Your task to perform on an android device: Go to Android settings Image 0: 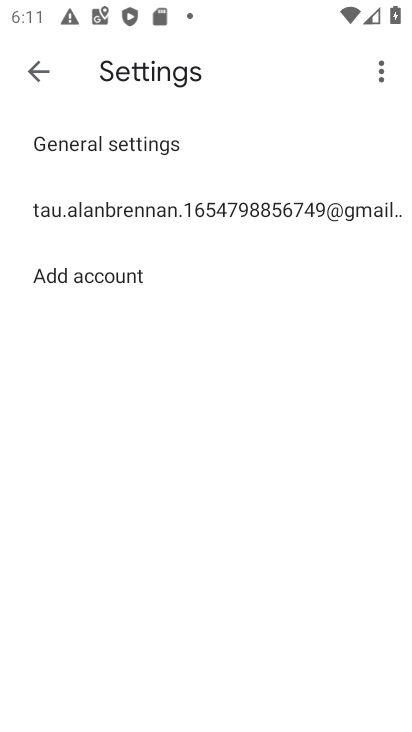
Step 0: press home button
Your task to perform on an android device: Go to Android settings Image 1: 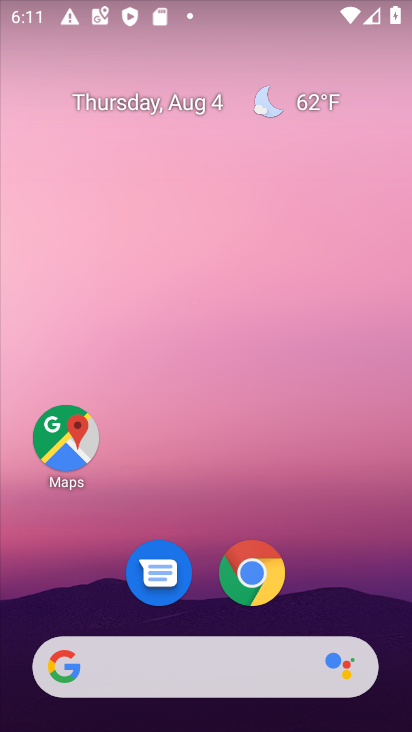
Step 1: drag from (194, 560) to (164, 62)
Your task to perform on an android device: Go to Android settings Image 2: 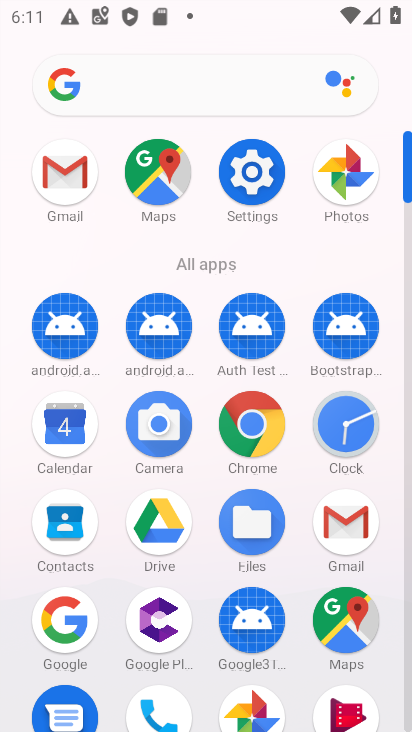
Step 2: drag from (122, 595) to (112, 141)
Your task to perform on an android device: Go to Android settings Image 3: 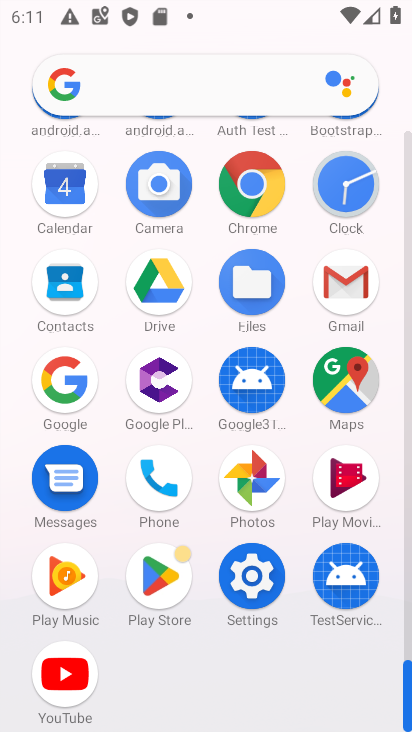
Step 3: click (256, 589)
Your task to perform on an android device: Go to Android settings Image 4: 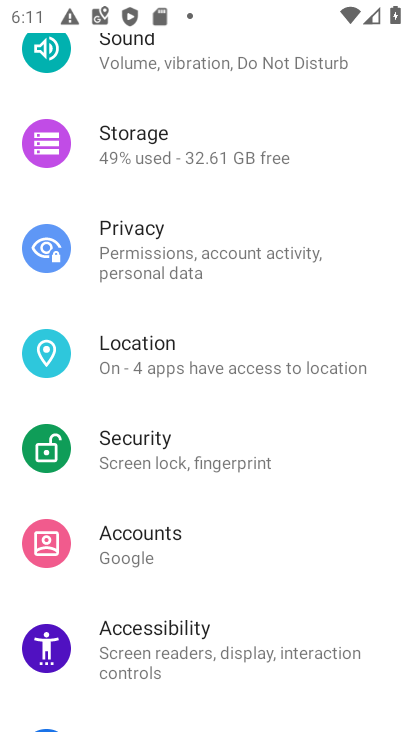
Step 4: task complete